Your task to perform on an android device: Go to display settings Image 0: 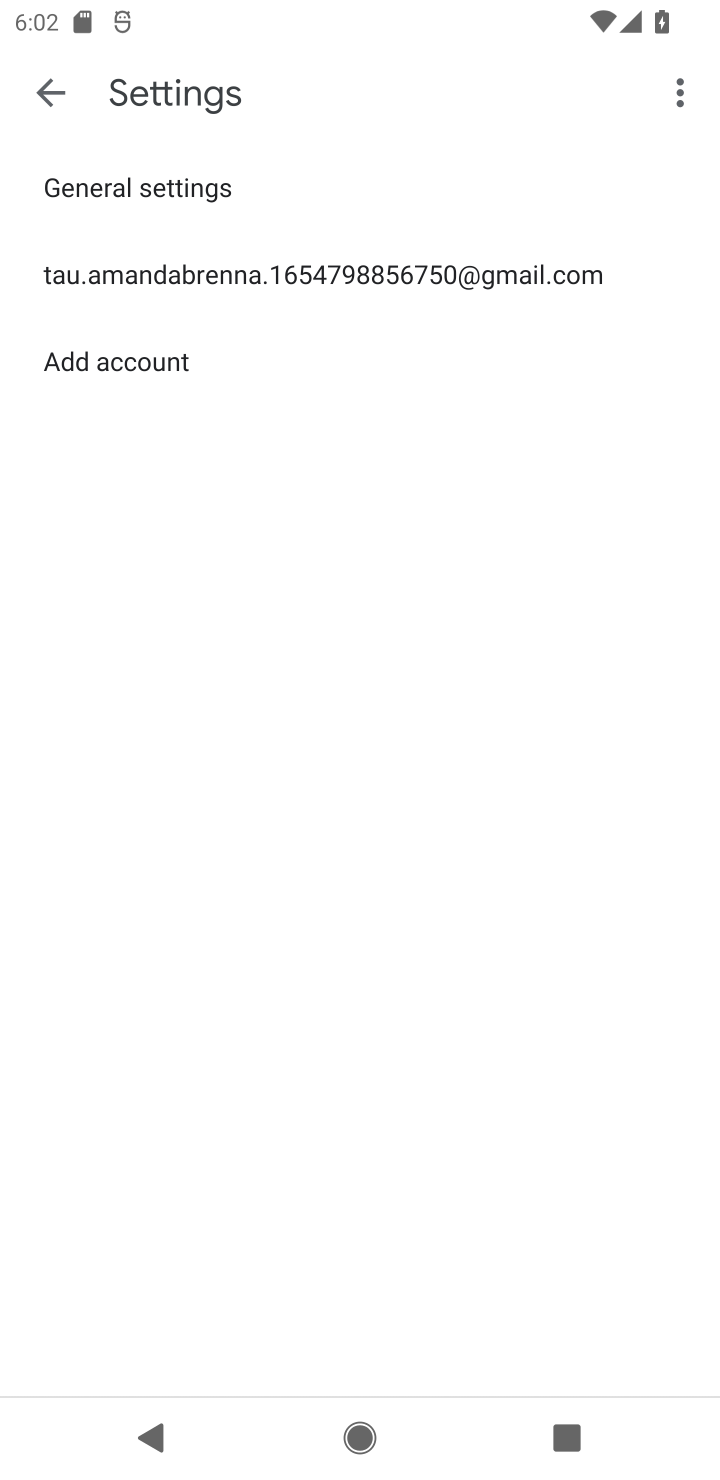
Step 0: click (47, 104)
Your task to perform on an android device: Go to display settings Image 1: 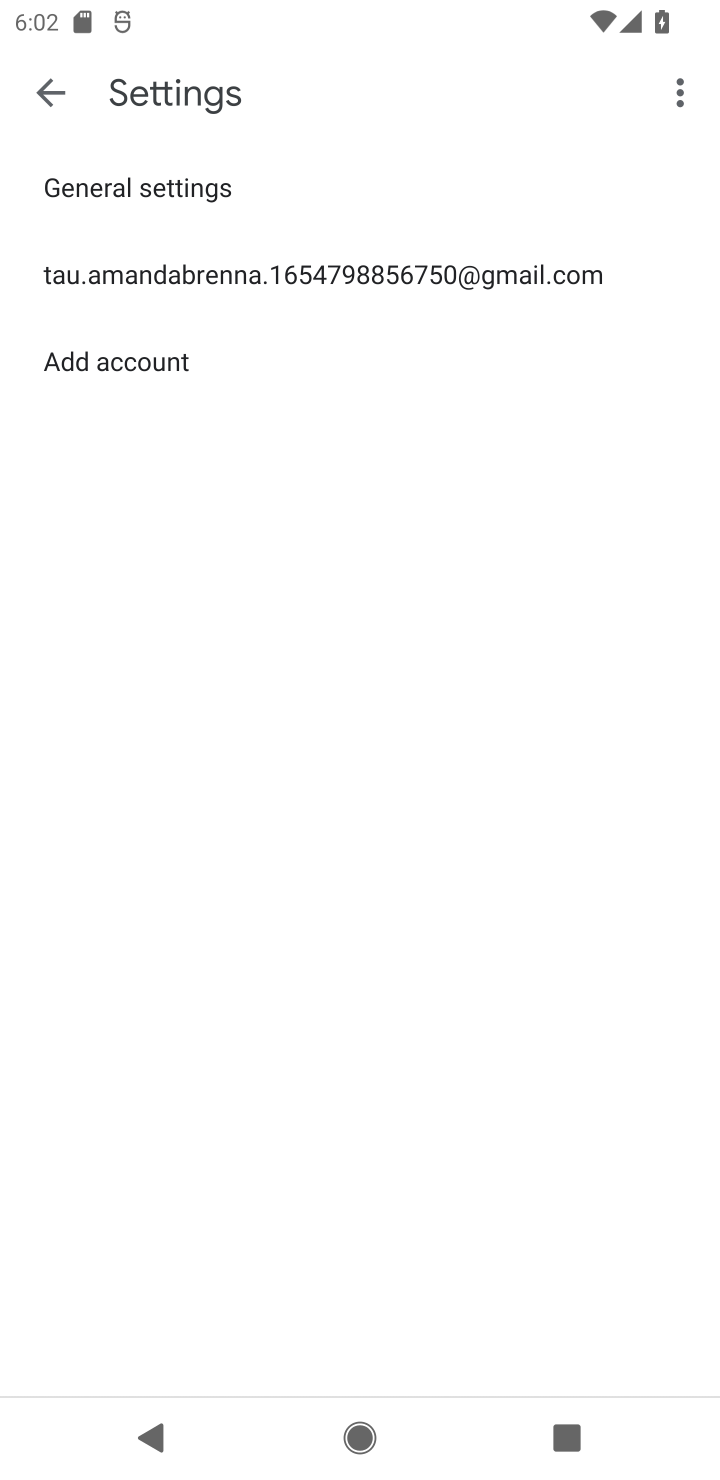
Step 1: task complete